Your task to perform on an android device: manage bookmarks in the chrome app Image 0: 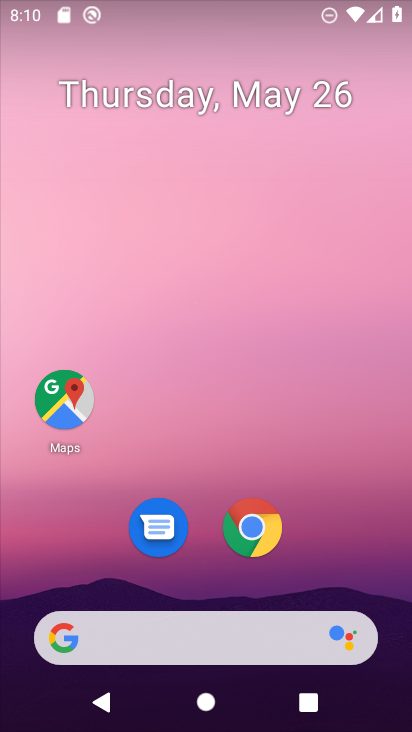
Step 0: press home button
Your task to perform on an android device: manage bookmarks in the chrome app Image 1: 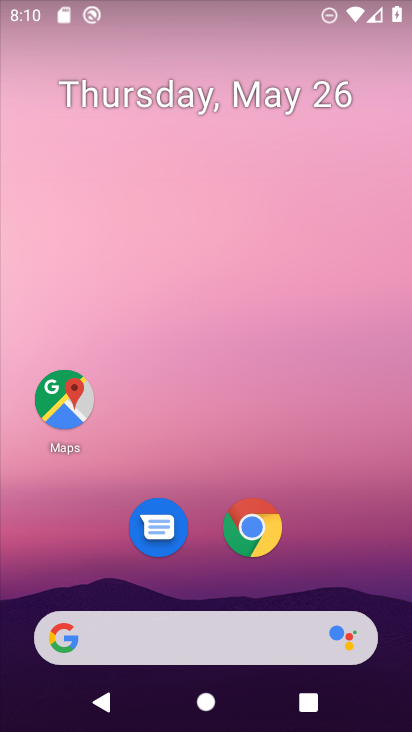
Step 1: click (240, 541)
Your task to perform on an android device: manage bookmarks in the chrome app Image 2: 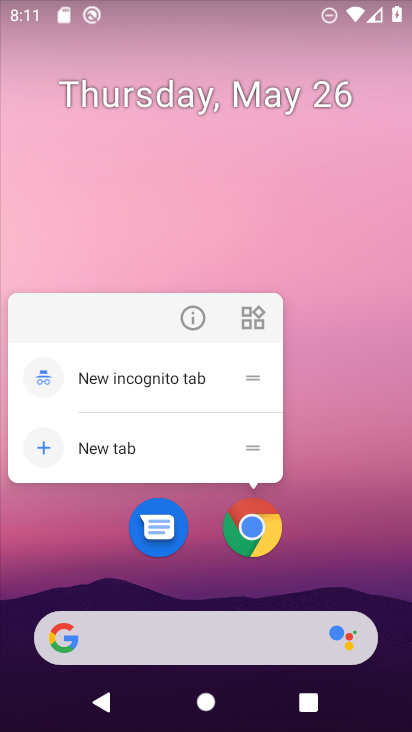
Step 2: click (251, 523)
Your task to perform on an android device: manage bookmarks in the chrome app Image 3: 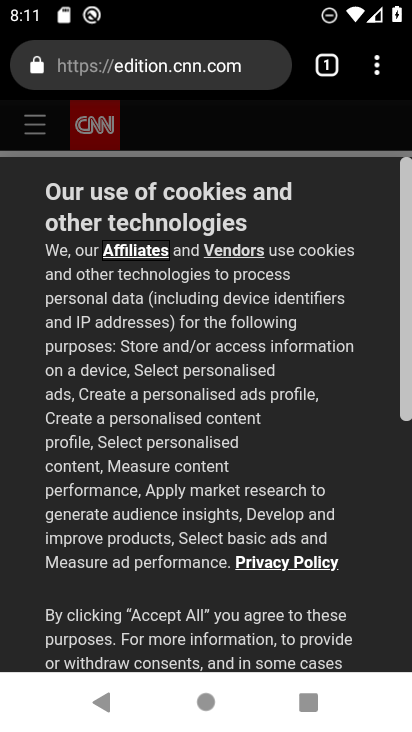
Step 3: click (368, 62)
Your task to perform on an android device: manage bookmarks in the chrome app Image 4: 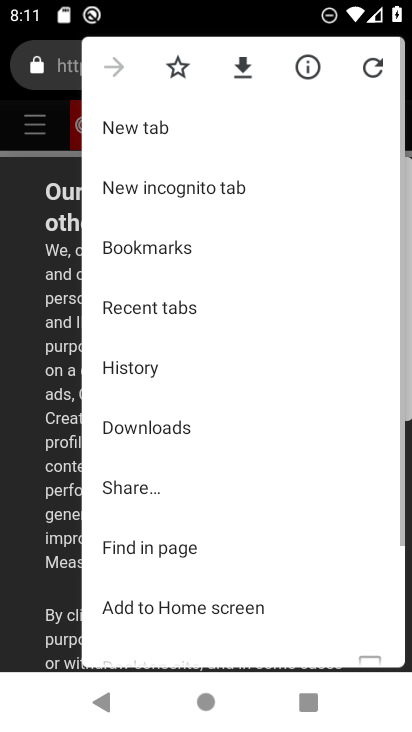
Step 4: click (144, 262)
Your task to perform on an android device: manage bookmarks in the chrome app Image 5: 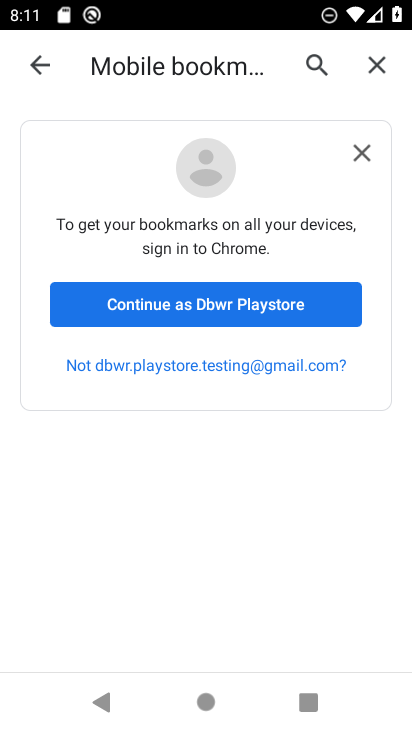
Step 5: click (359, 153)
Your task to perform on an android device: manage bookmarks in the chrome app Image 6: 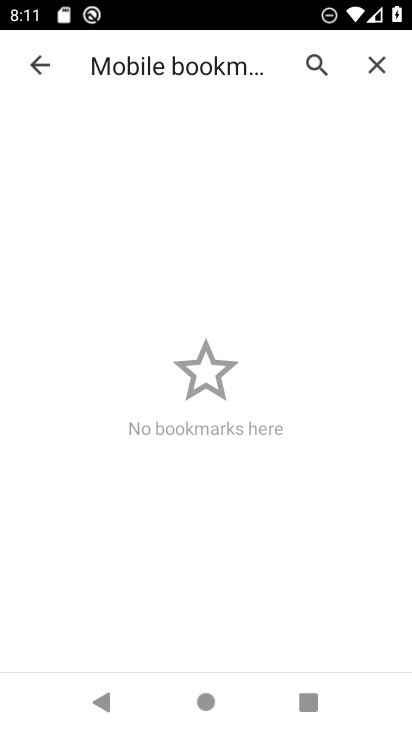
Step 6: task complete